Your task to perform on an android device: toggle wifi Image 0: 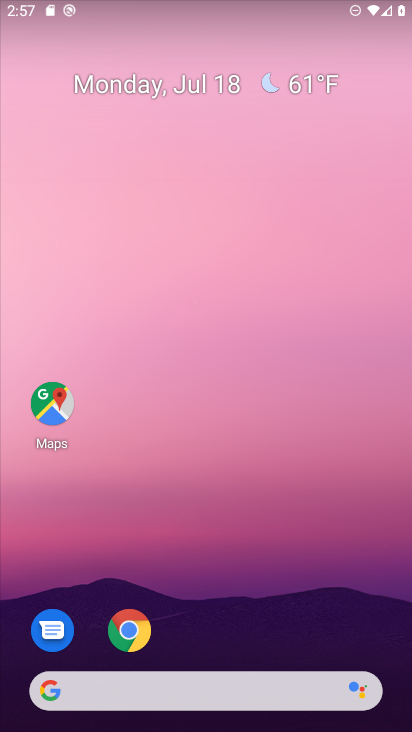
Step 0: drag from (276, 628) to (239, 74)
Your task to perform on an android device: toggle wifi Image 1: 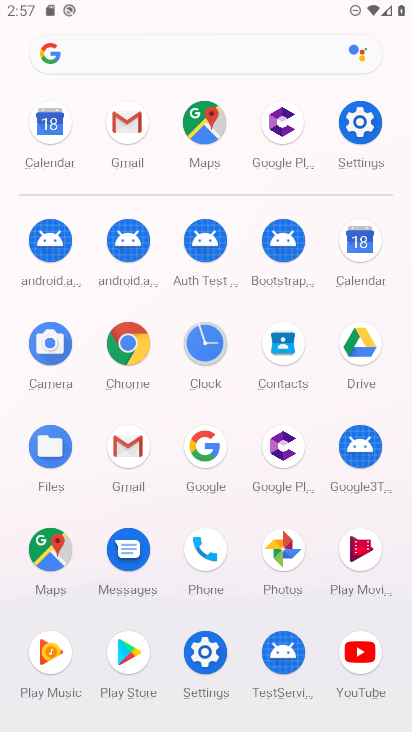
Step 1: click (362, 126)
Your task to perform on an android device: toggle wifi Image 2: 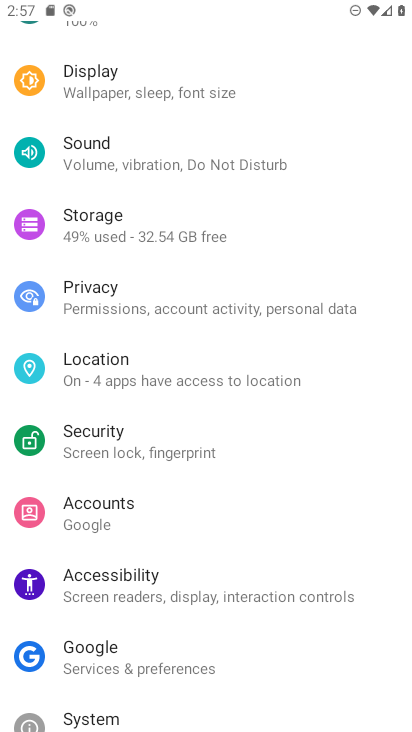
Step 2: drag from (227, 302) to (214, 647)
Your task to perform on an android device: toggle wifi Image 3: 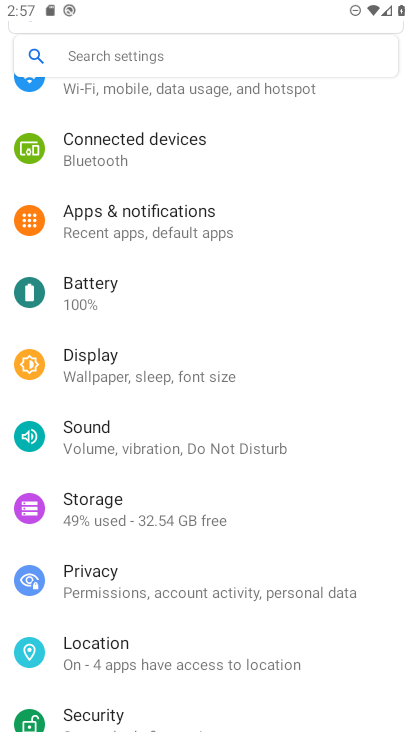
Step 3: drag from (224, 265) to (225, 536)
Your task to perform on an android device: toggle wifi Image 4: 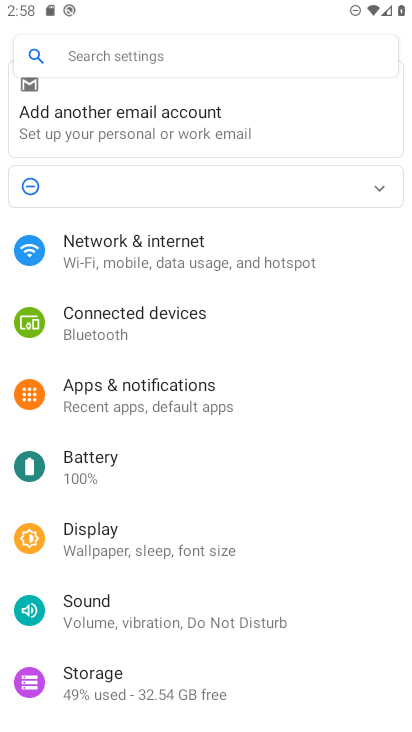
Step 4: click (242, 248)
Your task to perform on an android device: toggle wifi Image 5: 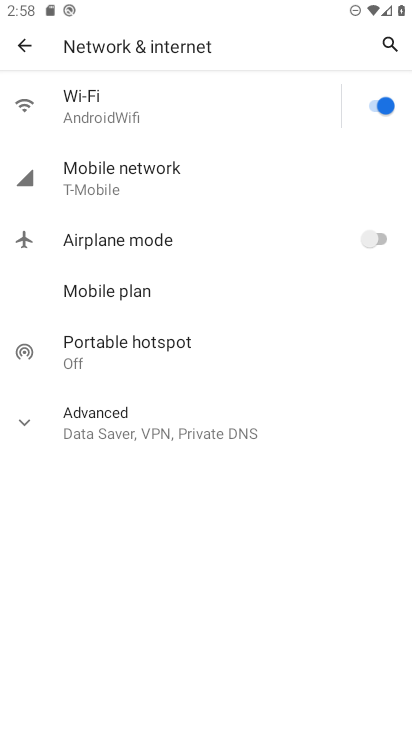
Step 5: click (378, 97)
Your task to perform on an android device: toggle wifi Image 6: 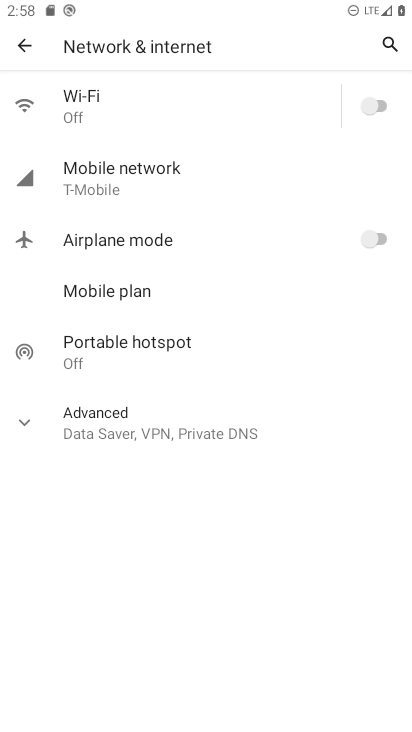
Step 6: task complete